Your task to perform on an android device: toggle location history Image 0: 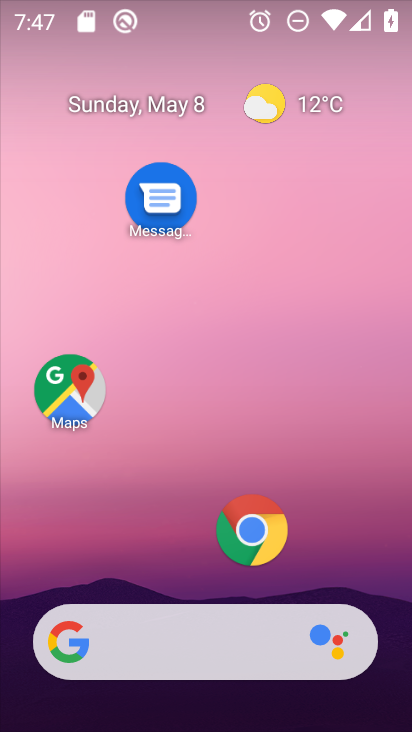
Step 0: press home button
Your task to perform on an android device: toggle location history Image 1: 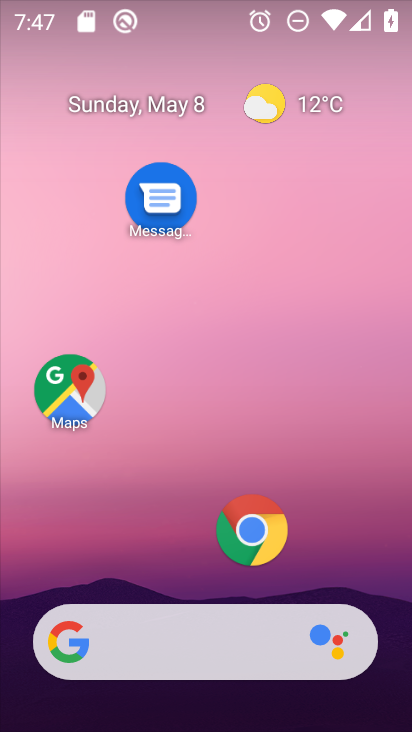
Step 1: drag from (198, 577) to (207, 47)
Your task to perform on an android device: toggle location history Image 2: 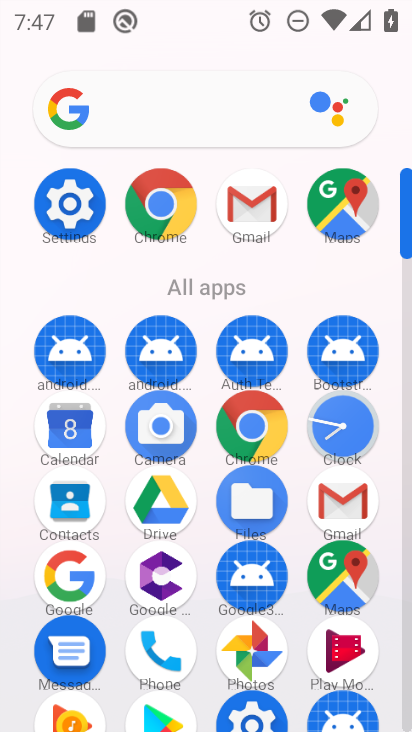
Step 2: click (67, 200)
Your task to perform on an android device: toggle location history Image 3: 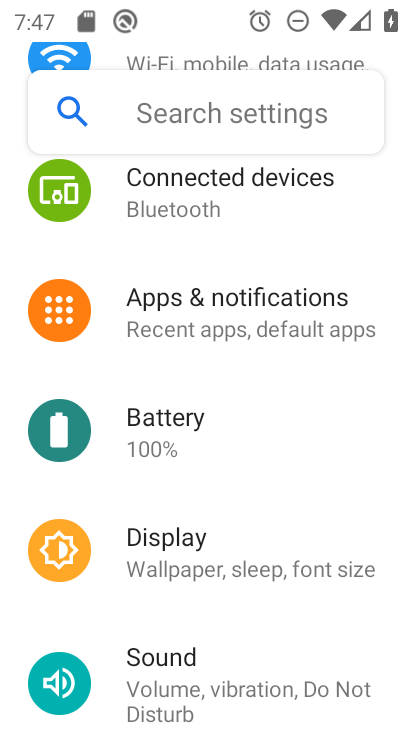
Step 3: drag from (237, 664) to (233, 84)
Your task to perform on an android device: toggle location history Image 4: 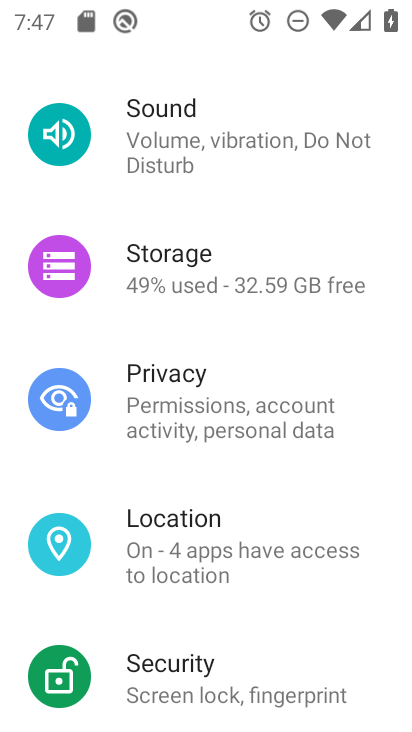
Step 4: click (233, 528)
Your task to perform on an android device: toggle location history Image 5: 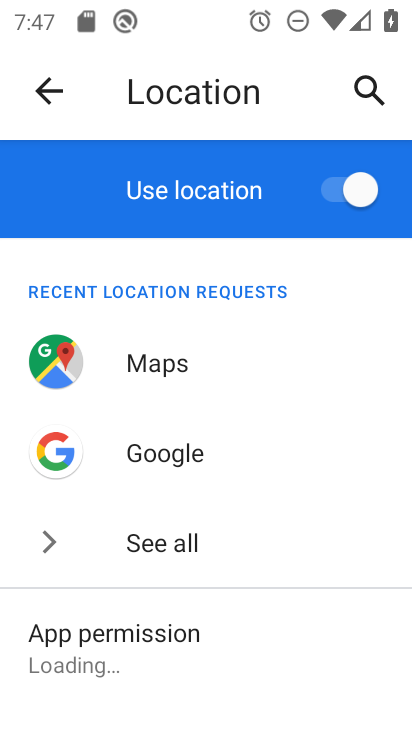
Step 5: drag from (197, 648) to (201, 70)
Your task to perform on an android device: toggle location history Image 6: 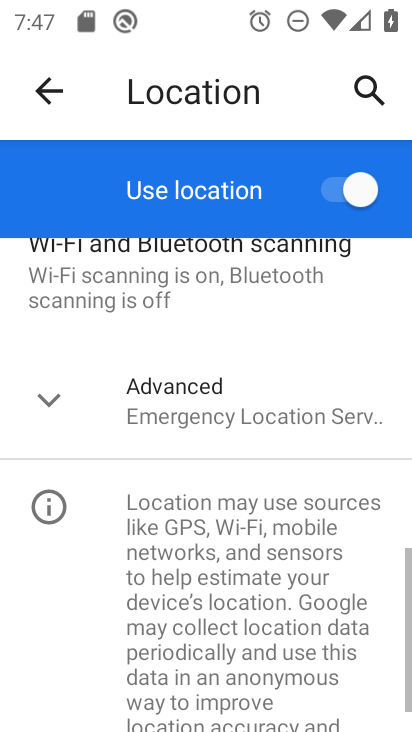
Step 6: click (50, 399)
Your task to perform on an android device: toggle location history Image 7: 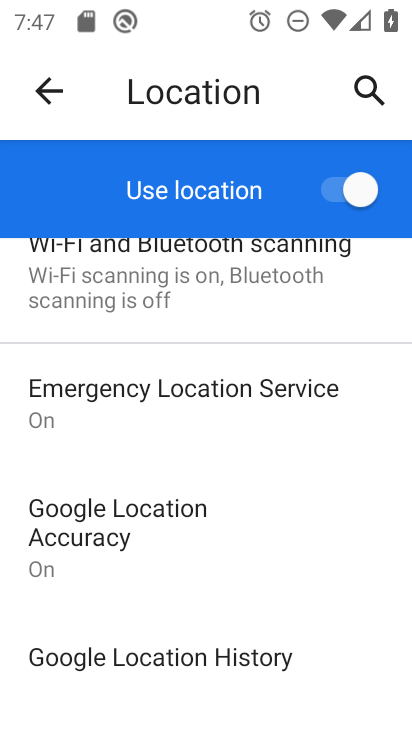
Step 7: click (209, 667)
Your task to perform on an android device: toggle location history Image 8: 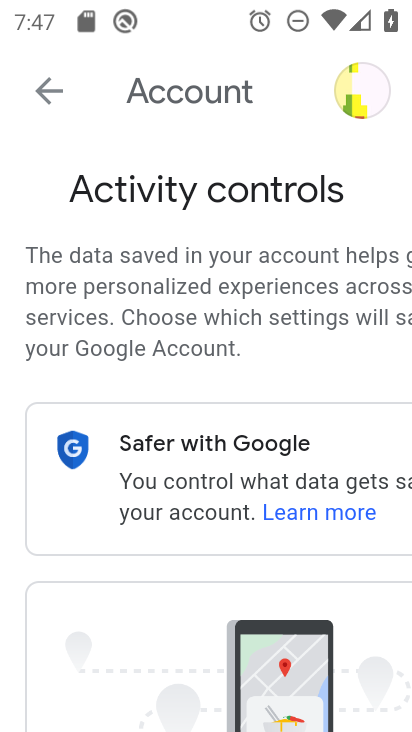
Step 8: task complete